Your task to perform on an android device: Open Google Maps and go to "Timeline" Image 0: 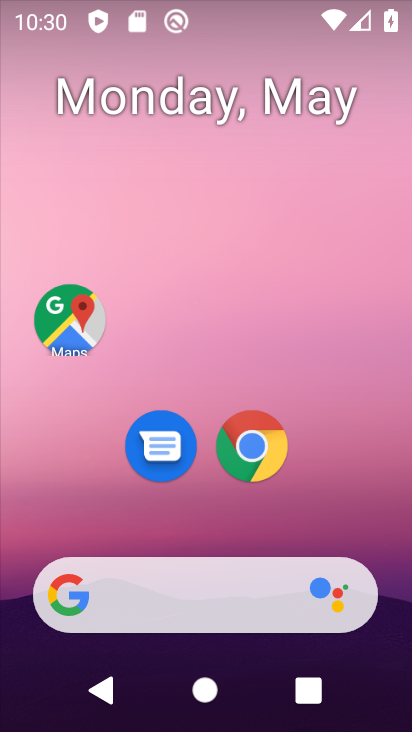
Step 0: click (60, 331)
Your task to perform on an android device: Open Google Maps and go to "Timeline" Image 1: 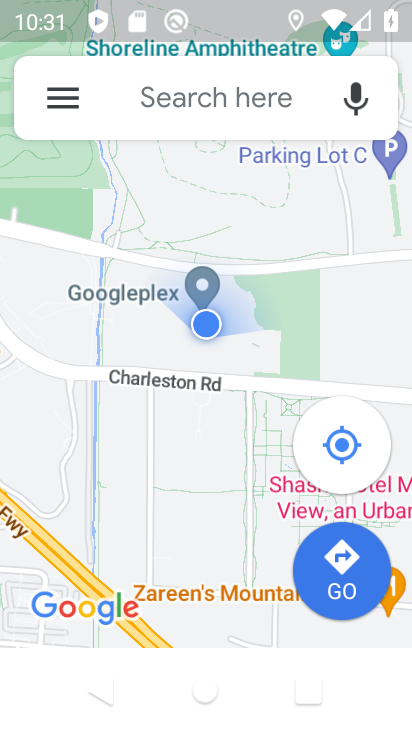
Step 1: click (49, 86)
Your task to perform on an android device: Open Google Maps and go to "Timeline" Image 2: 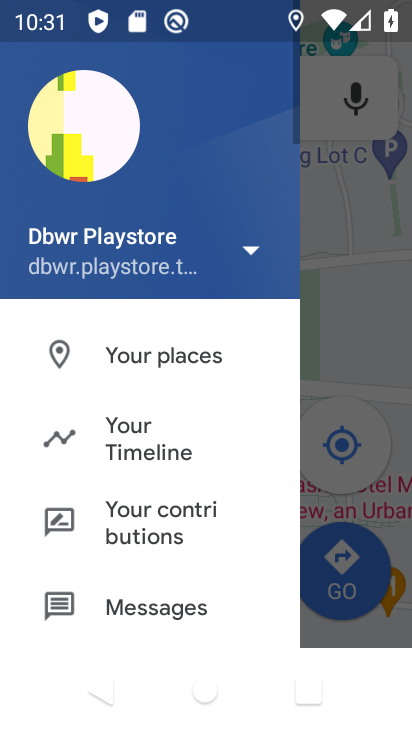
Step 2: click (133, 446)
Your task to perform on an android device: Open Google Maps and go to "Timeline" Image 3: 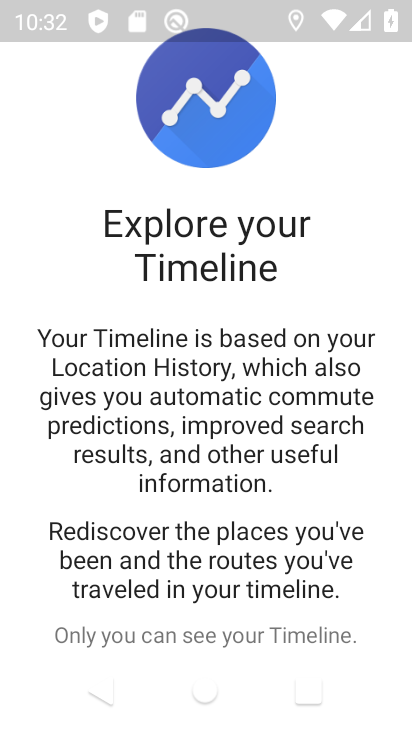
Step 3: task complete